Your task to perform on an android device: Open Google Maps Image 0: 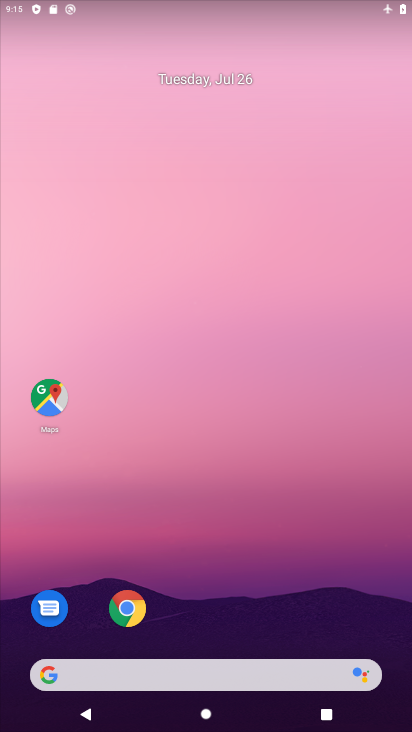
Step 0: click (51, 395)
Your task to perform on an android device: Open Google Maps Image 1: 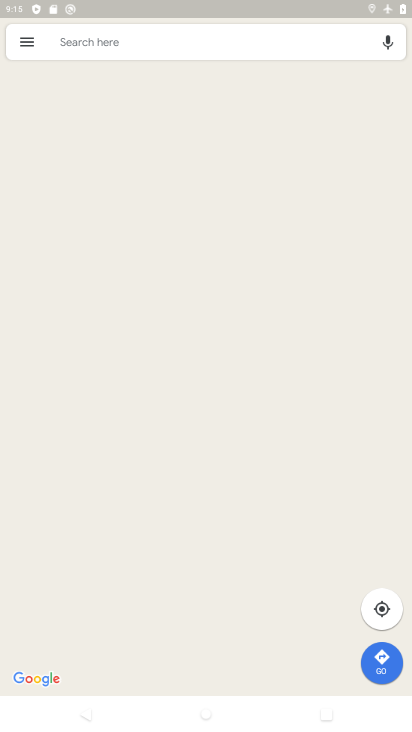
Step 1: task complete